Your task to perform on an android device: Search for "energizer triple a" on walmart.com, select the first entry, and add it to the cart. Image 0: 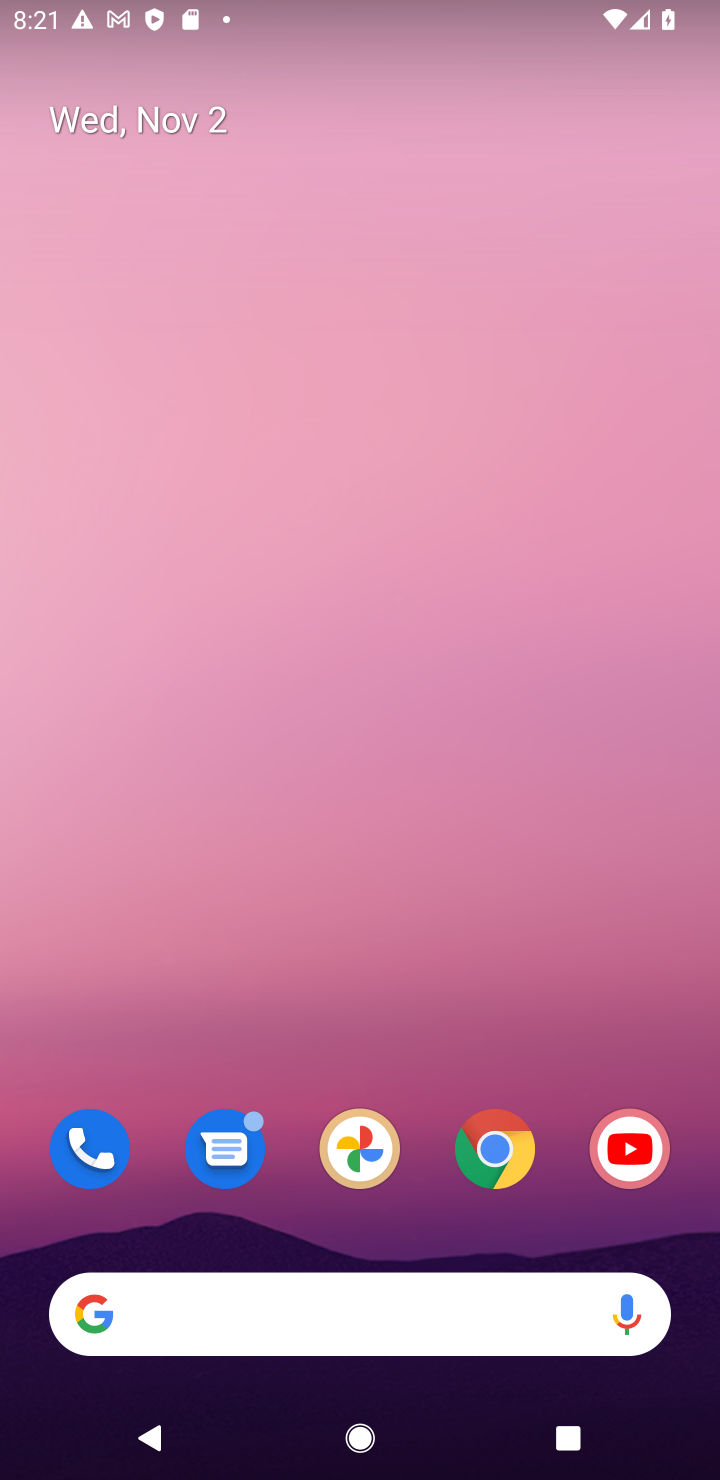
Step 0: drag from (426, 883) to (396, 12)
Your task to perform on an android device: Search for "energizer triple a" on walmart.com, select the first entry, and add it to the cart. Image 1: 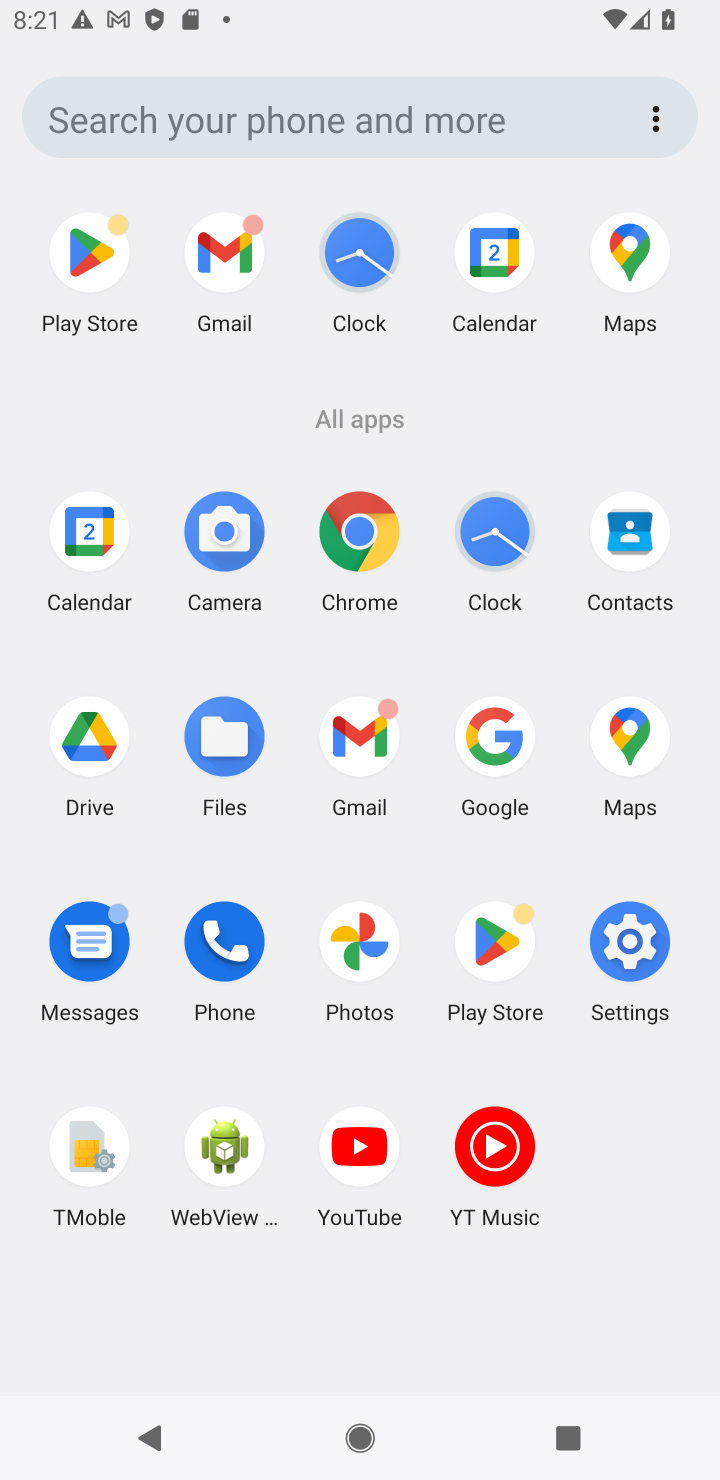
Step 1: click (503, 738)
Your task to perform on an android device: Search for "energizer triple a" on walmart.com, select the first entry, and add it to the cart. Image 2: 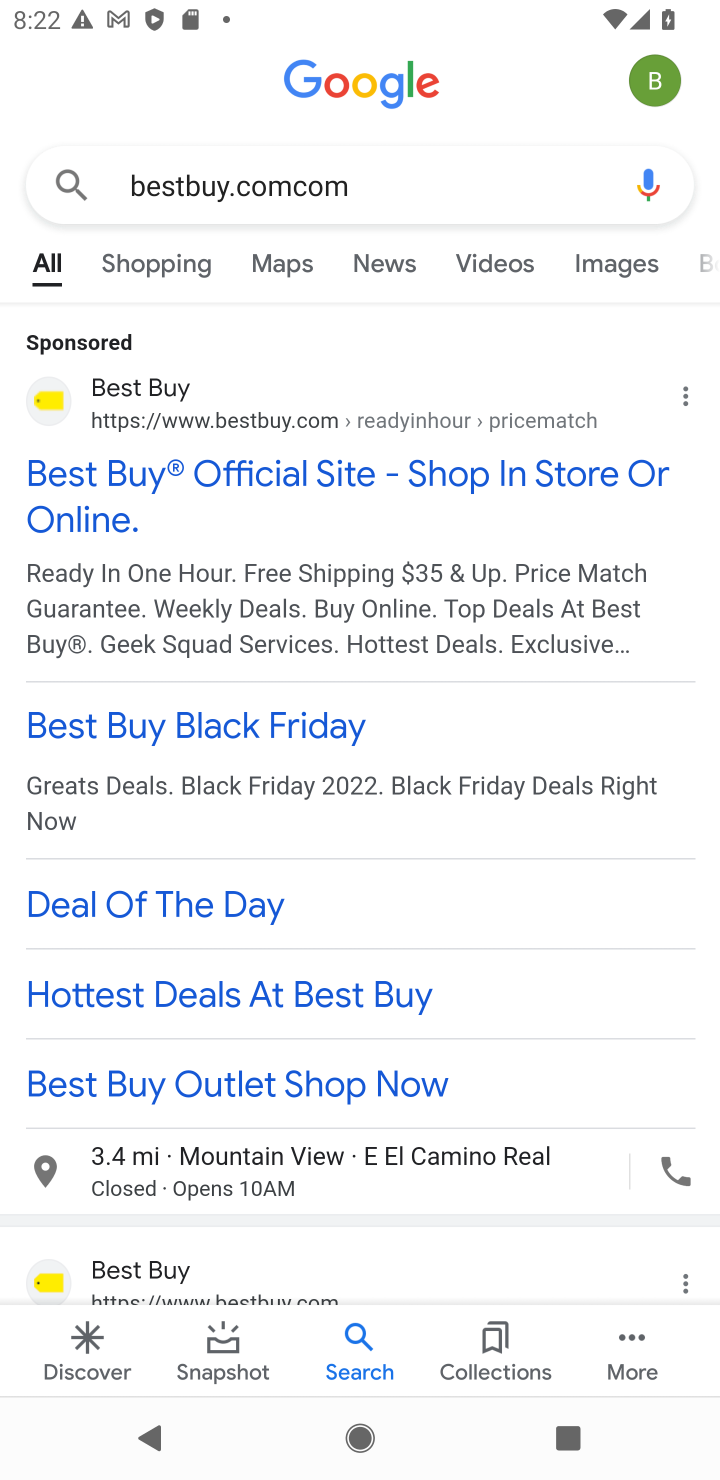
Step 2: click (216, 473)
Your task to perform on an android device: Search for "energizer triple a" on walmart.com, select the first entry, and add it to the cart. Image 3: 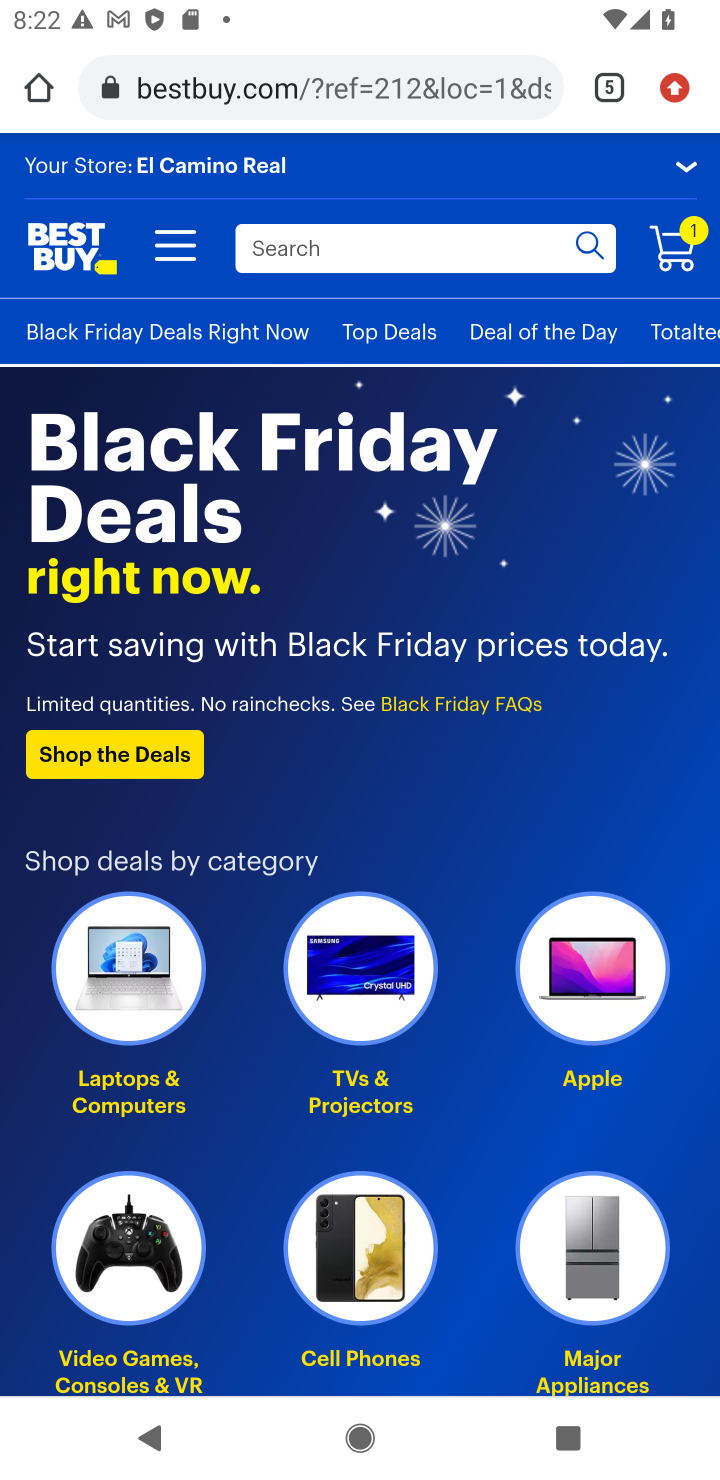
Step 3: click (681, 97)
Your task to perform on an android device: Search for "energizer triple a" on walmart.com, select the first entry, and add it to the cart. Image 4: 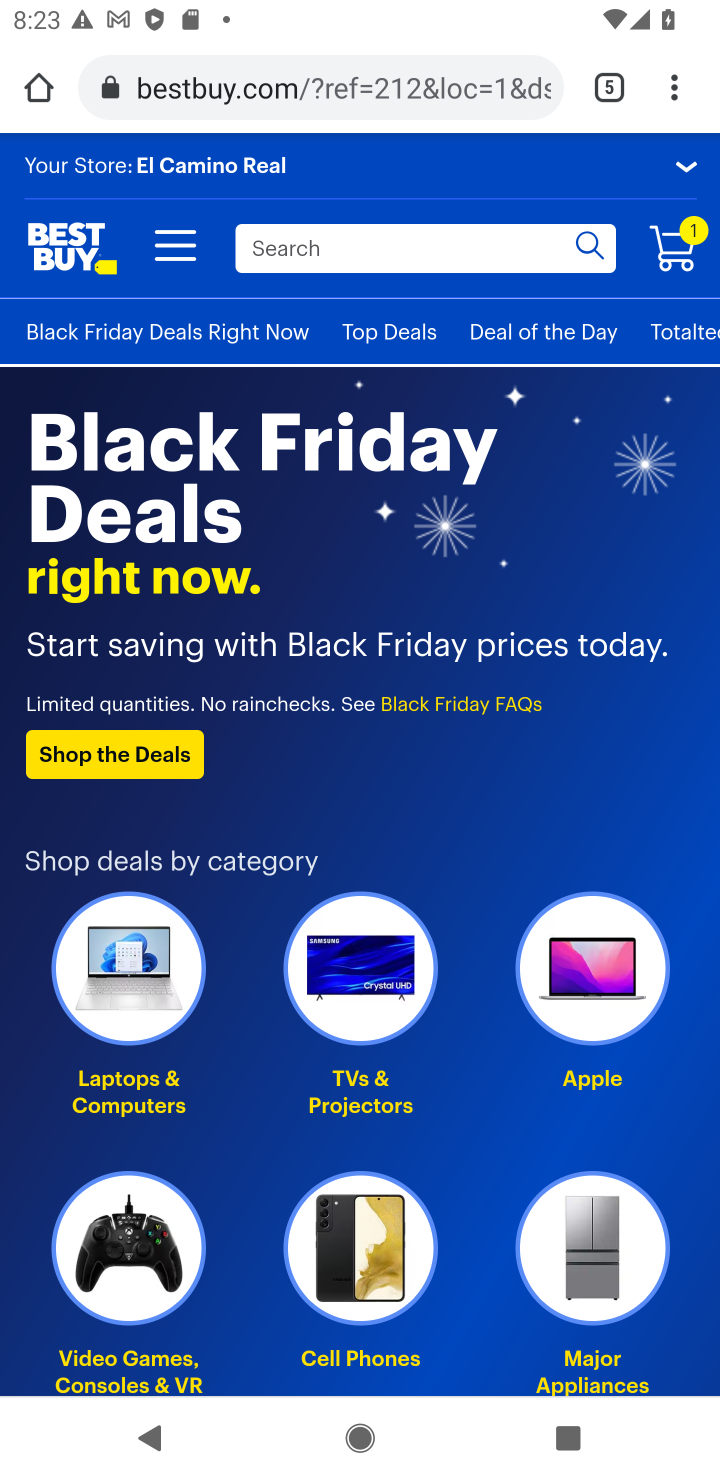
Step 4: drag from (676, 99) to (401, 293)
Your task to perform on an android device: Search for "energizer triple a" on walmart.com, select the first entry, and add it to the cart. Image 5: 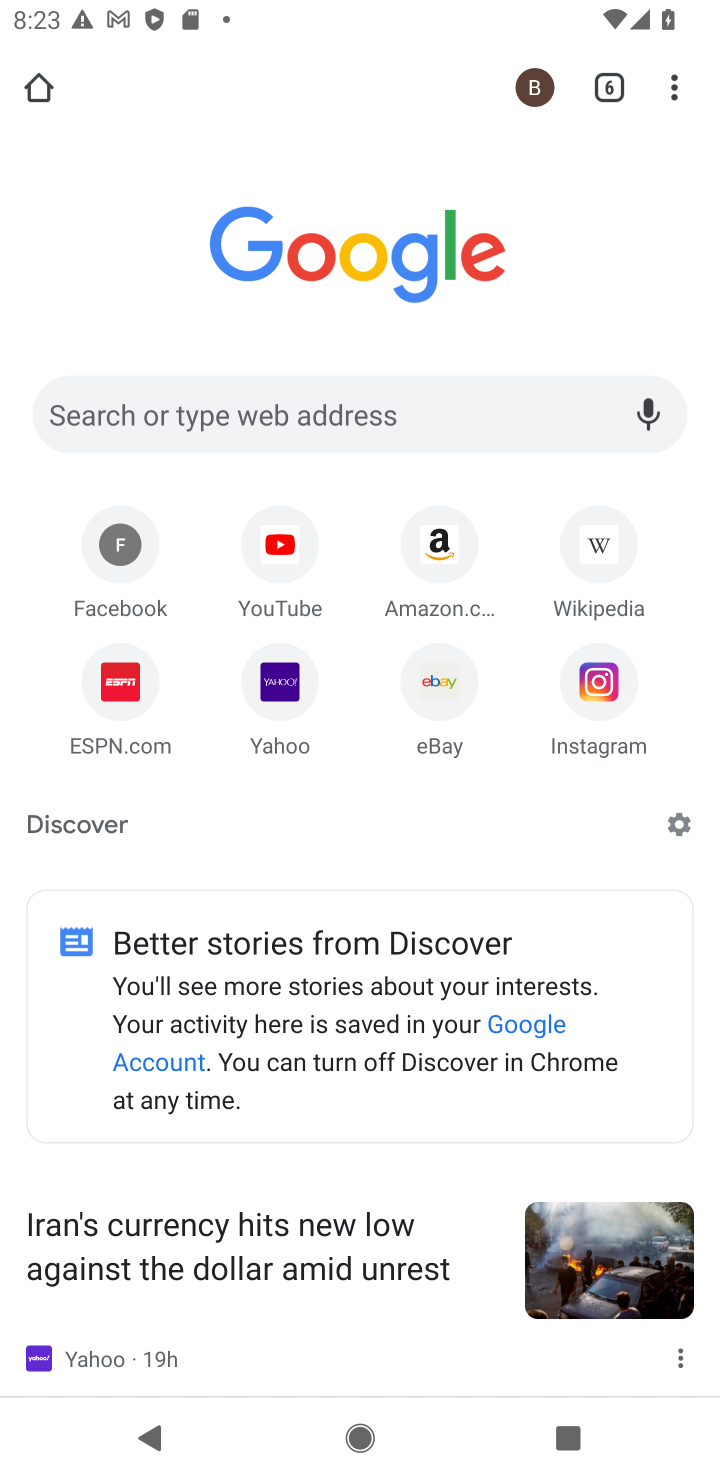
Step 5: click (346, 413)
Your task to perform on an android device: Search for "energizer triple a" on walmart.com, select the first entry, and add it to the cart. Image 6: 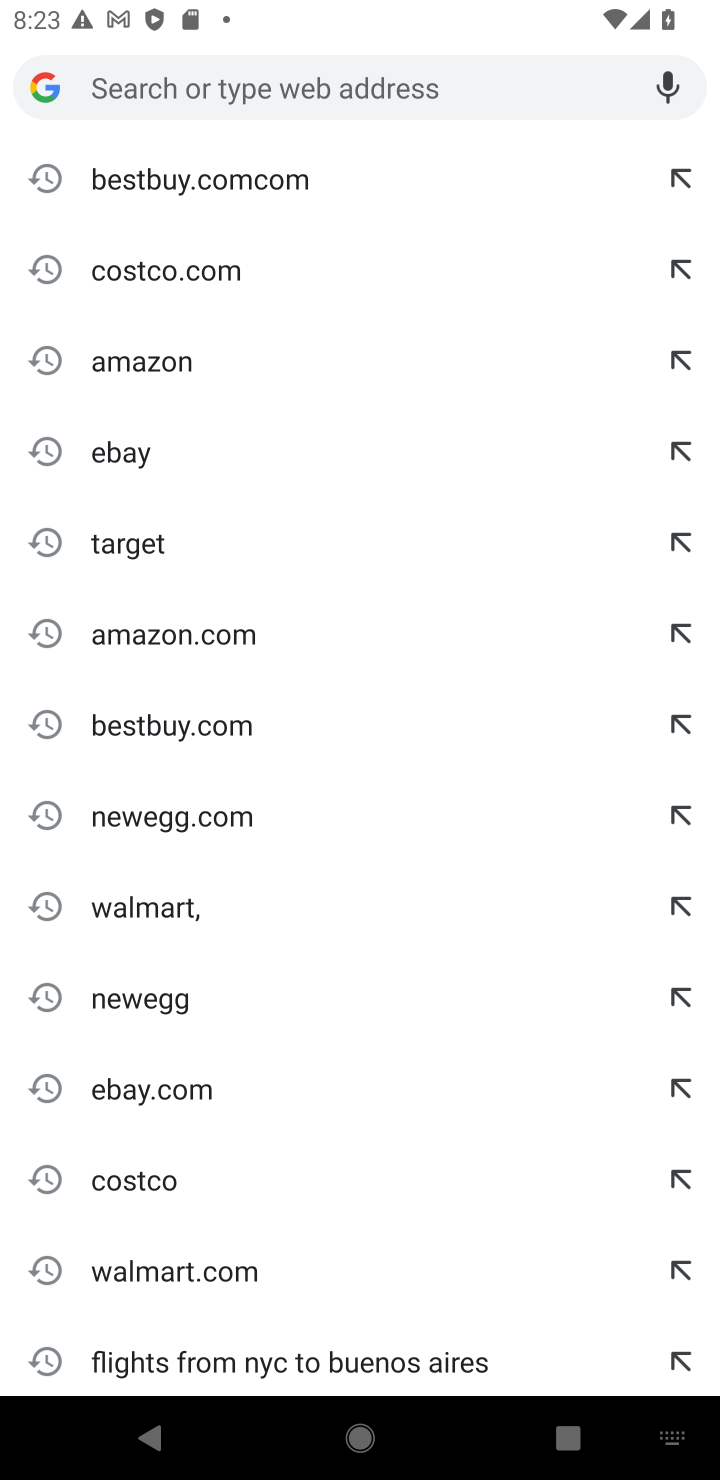
Step 6: type "walmart.com"
Your task to perform on an android device: Search for "energizer triple a" on walmart.com, select the first entry, and add it to the cart. Image 7: 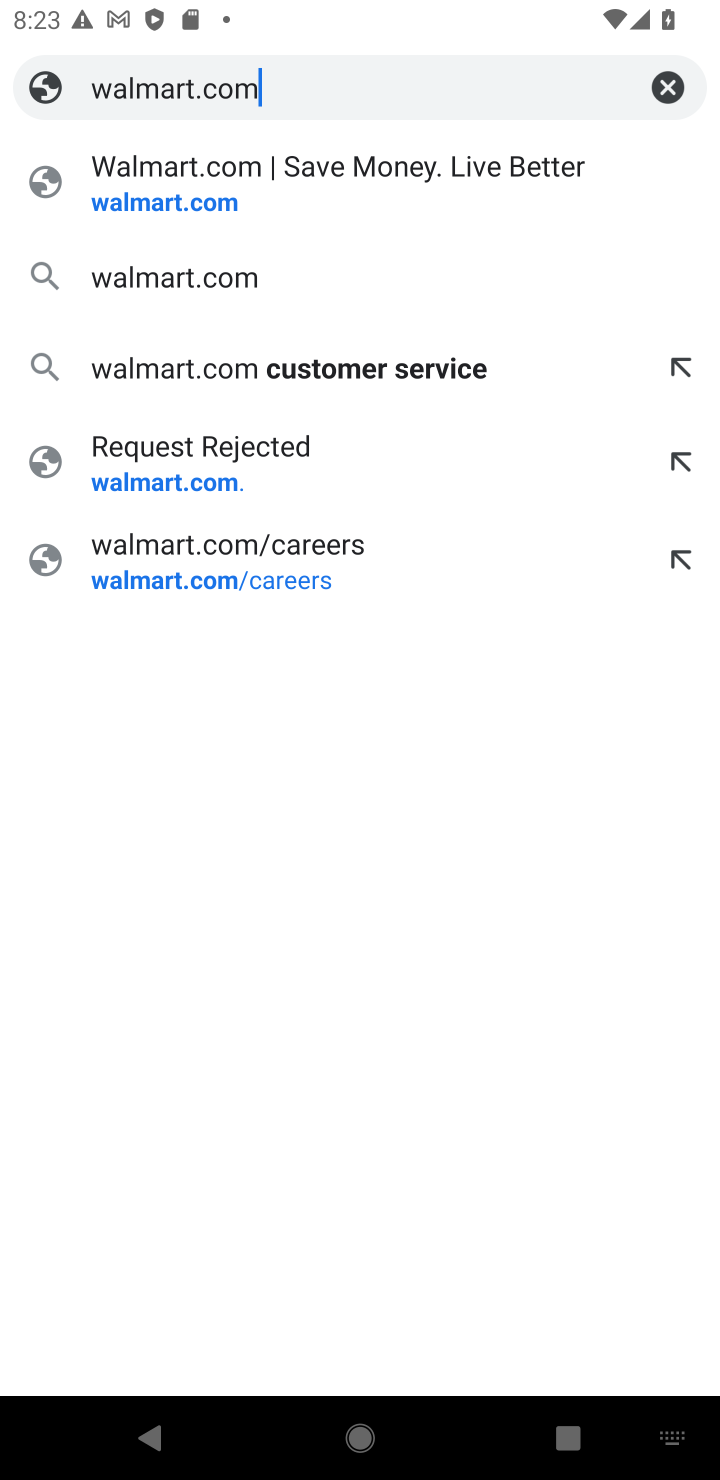
Step 7: type ""
Your task to perform on an android device: Search for "energizer triple a" on walmart.com, select the first entry, and add it to the cart. Image 8: 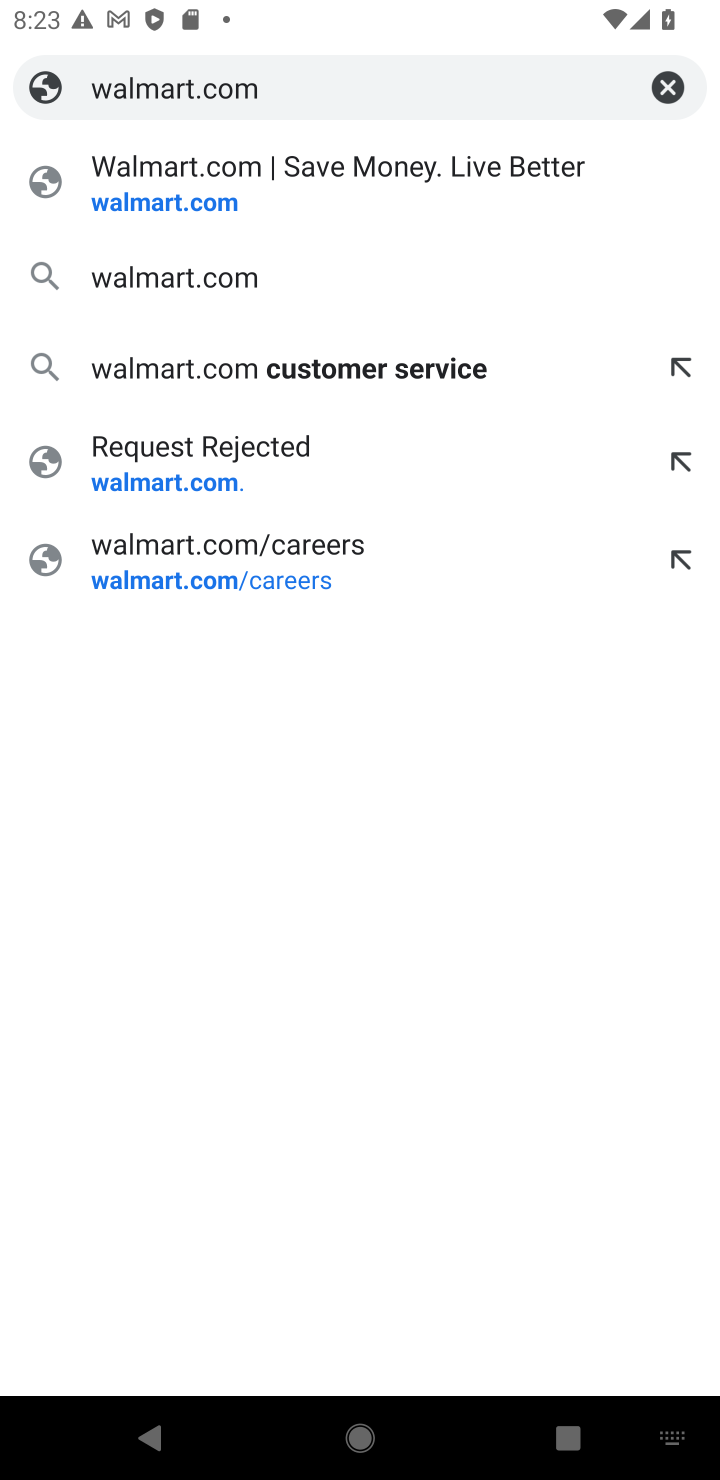
Step 8: click (195, 279)
Your task to perform on an android device: Search for "energizer triple a" on walmart.com, select the first entry, and add it to the cart. Image 9: 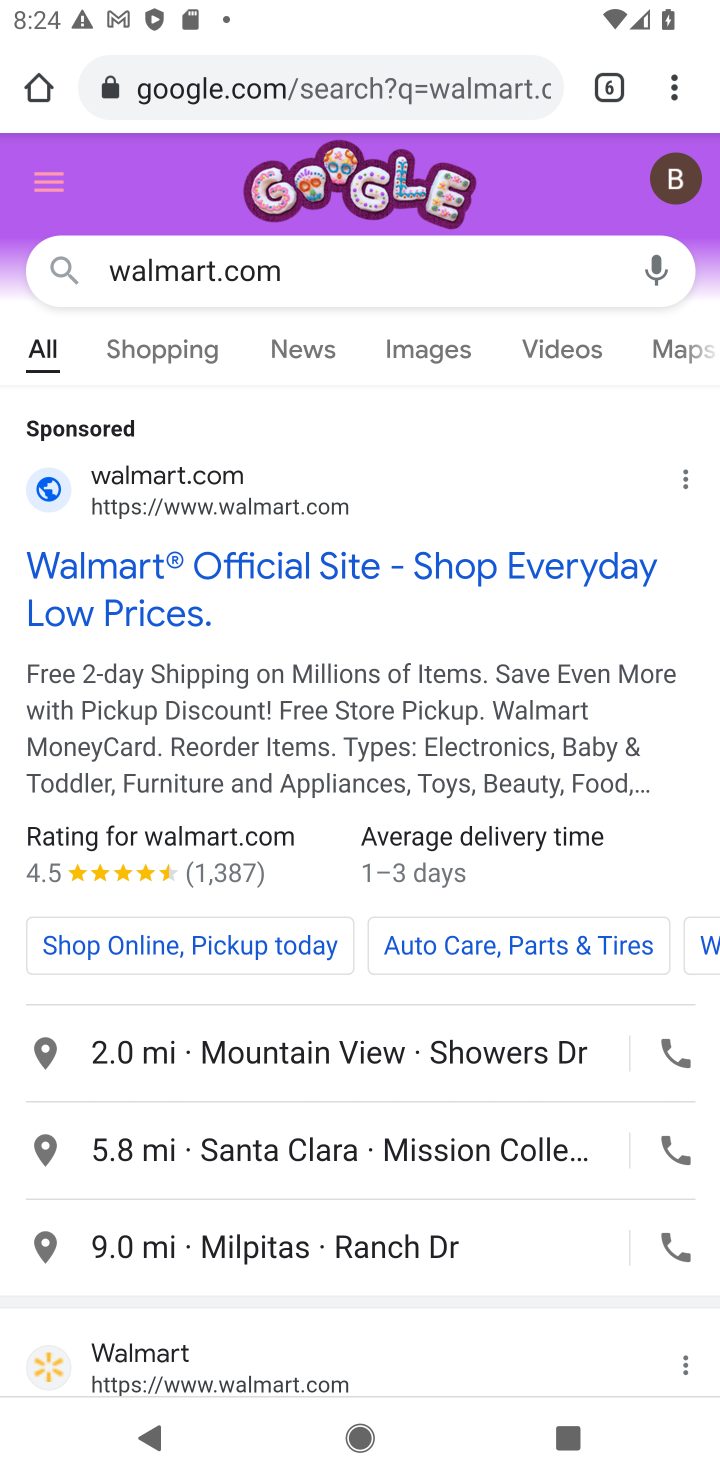
Step 9: click (220, 551)
Your task to perform on an android device: Search for "energizer triple a" on walmart.com, select the first entry, and add it to the cart. Image 10: 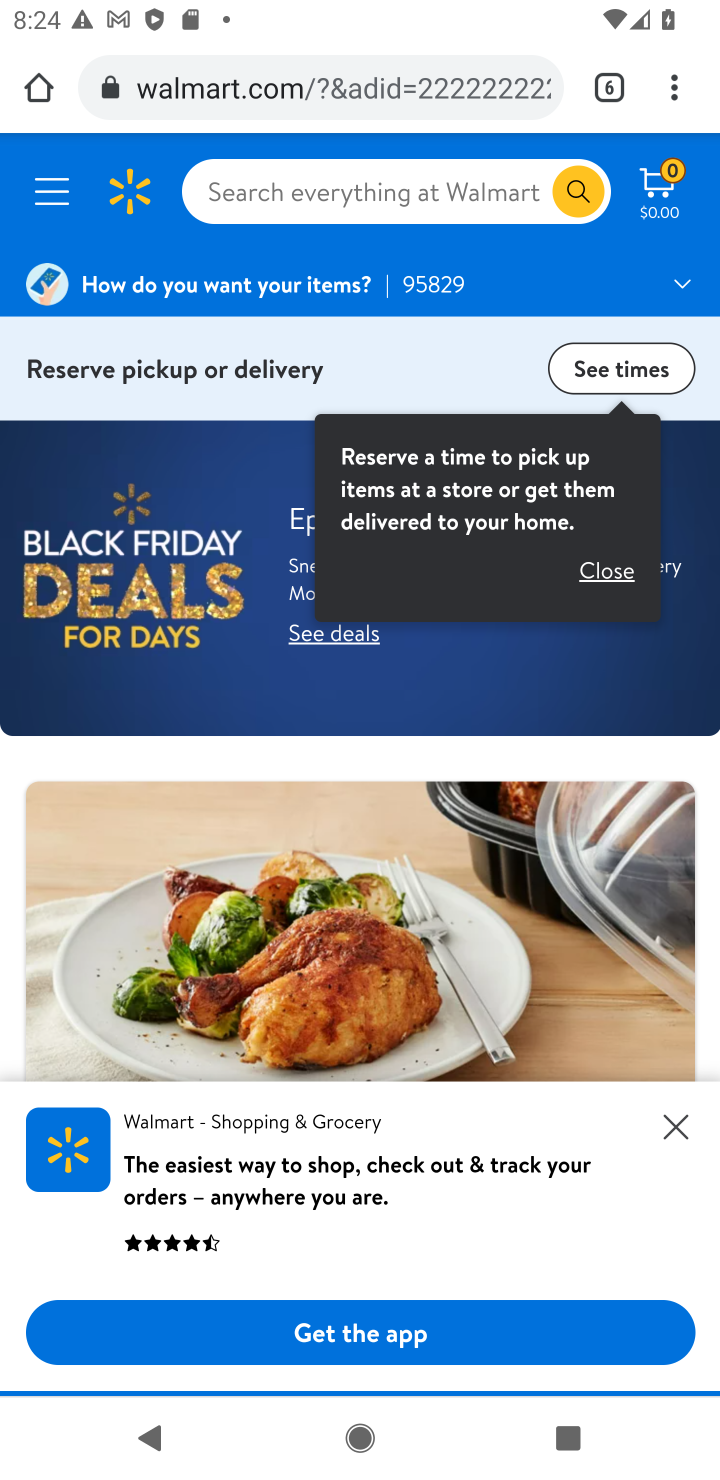
Step 10: click (308, 163)
Your task to perform on an android device: Search for "energizer triple a" on walmart.com, select the first entry, and add it to the cart. Image 11: 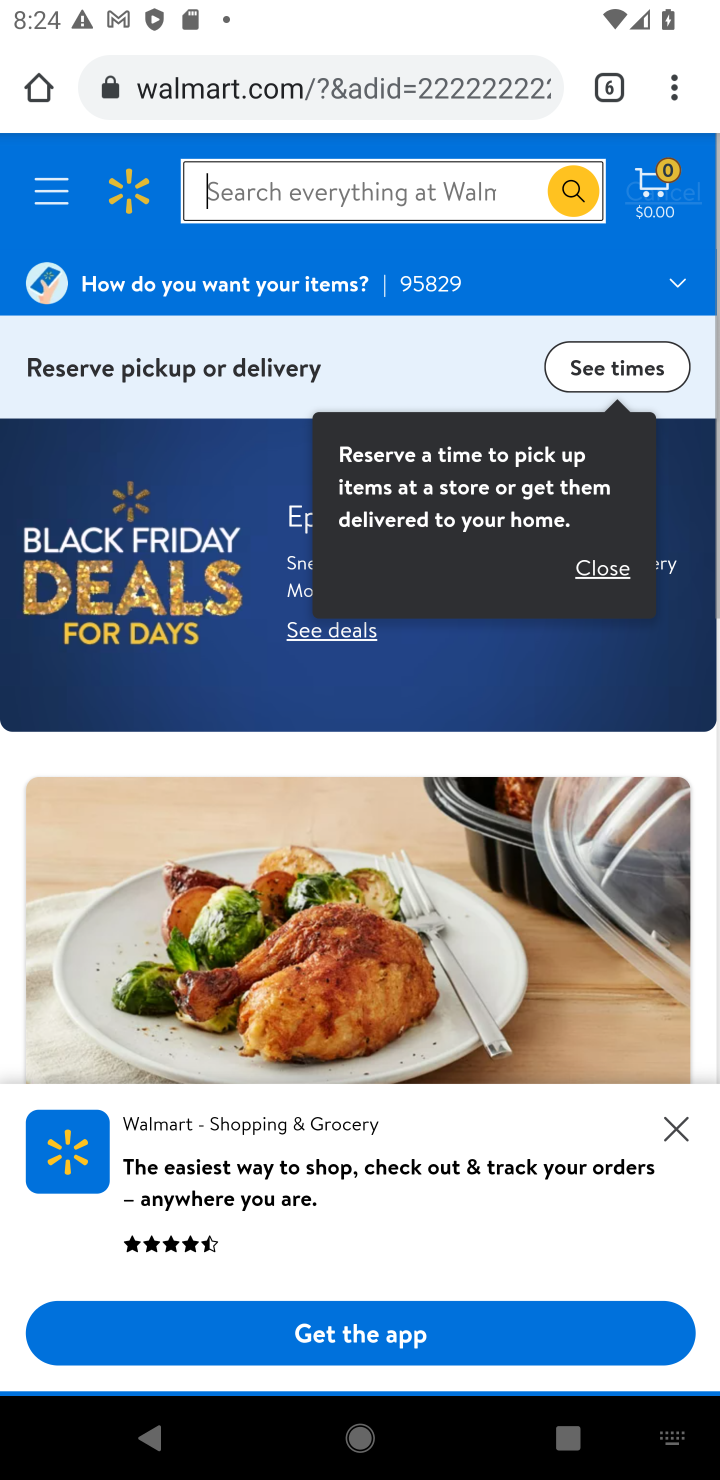
Step 11: click (321, 194)
Your task to perform on an android device: Search for "energizer triple a" on walmart.com, select the first entry, and add it to the cart. Image 12: 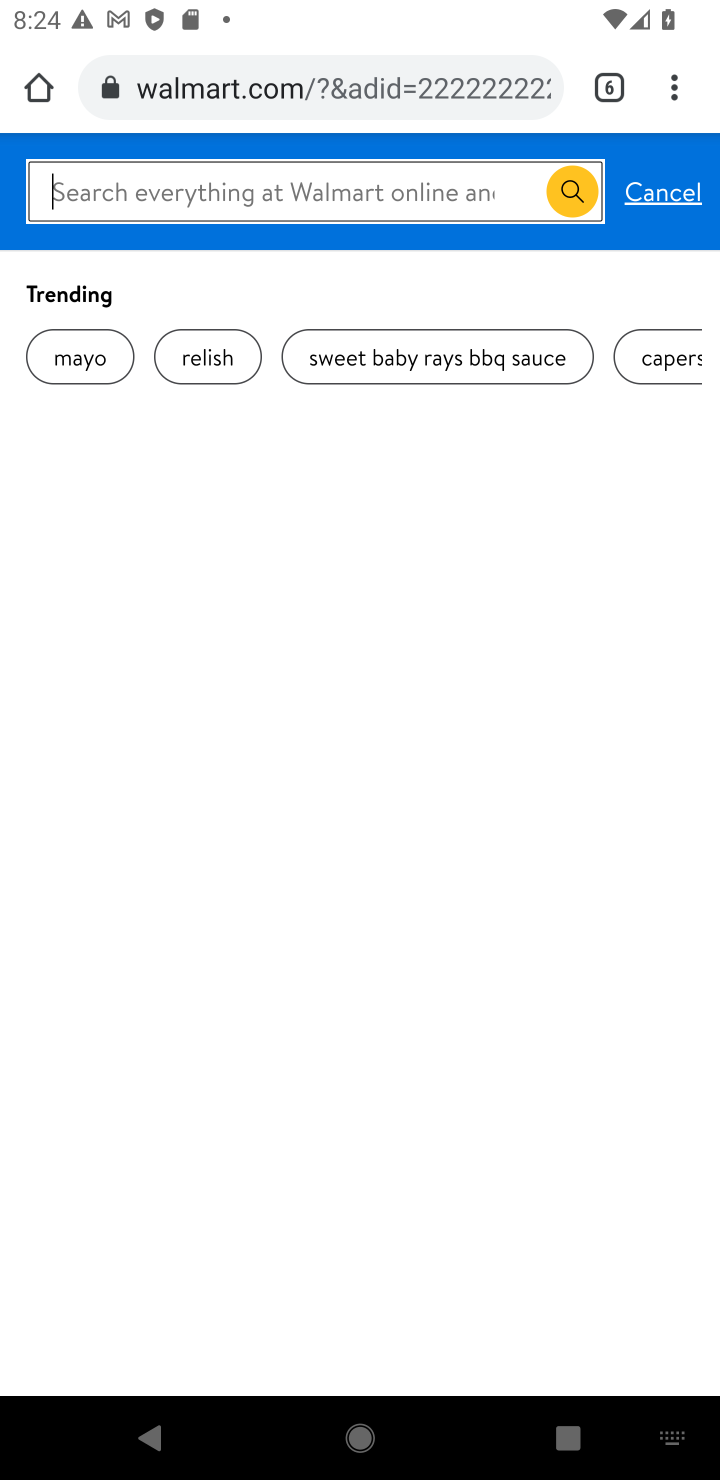
Step 12: type "energizer triple"
Your task to perform on an android device: Search for "energizer triple a" on walmart.com, select the first entry, and add it to the cart. Image 13: 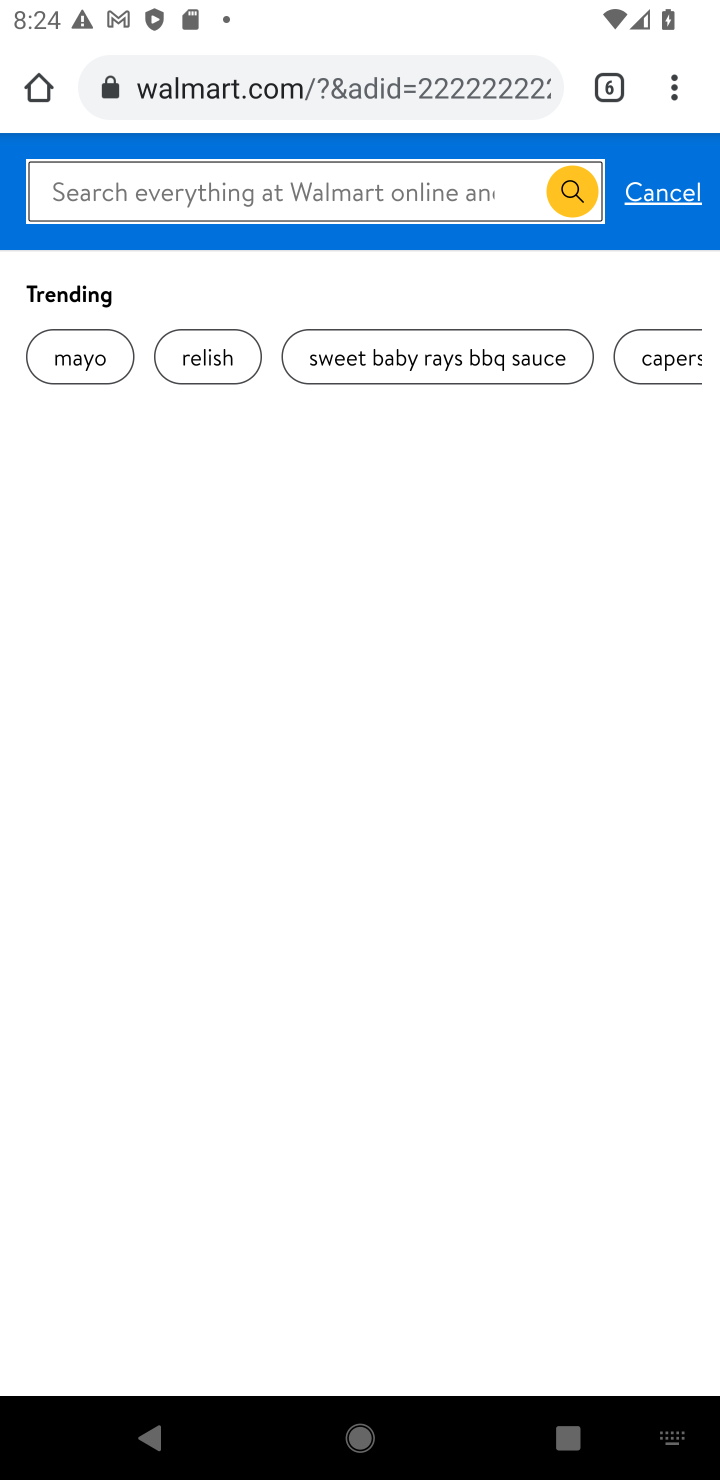
Step 13: type ""
Your task to perform on an android device: Search for "energizer triple a" on walmart.com, select the first entry, and add it to the cart. Image 14: 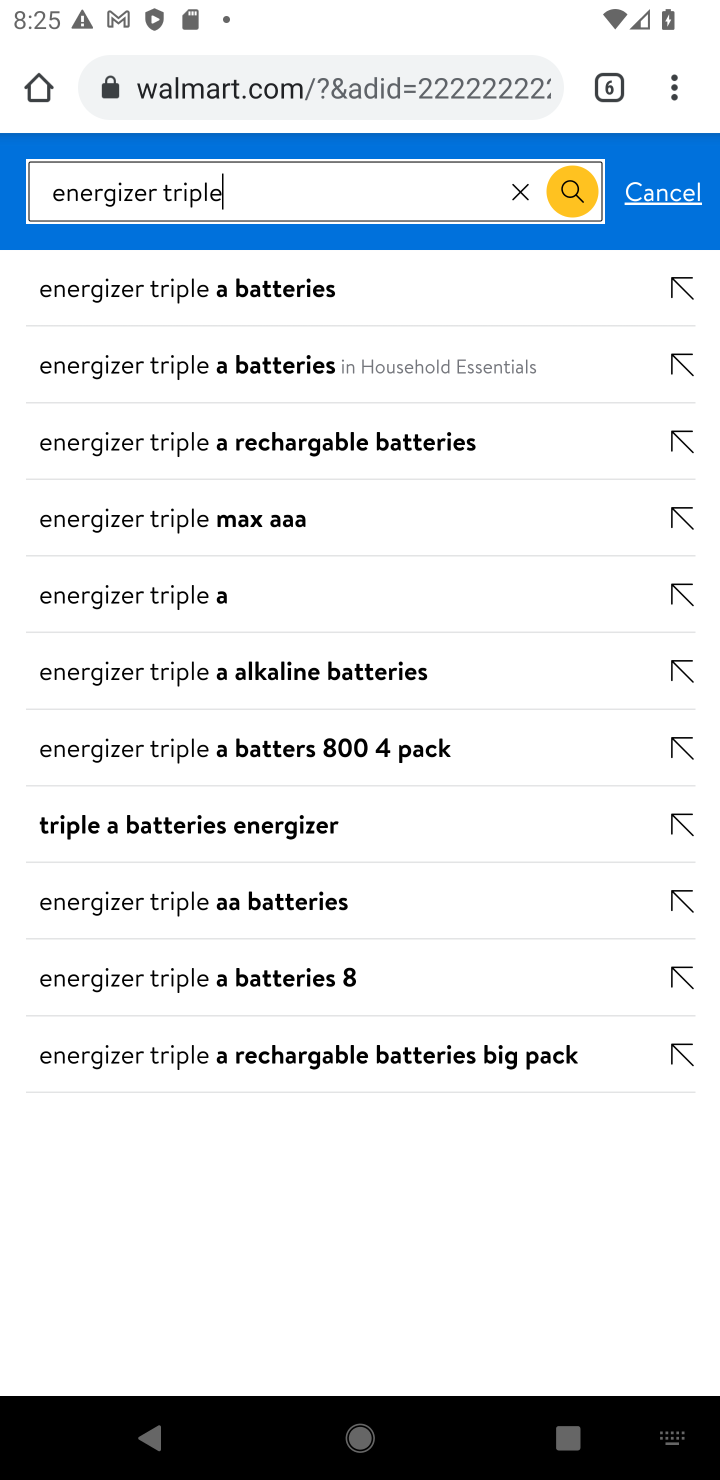
Step 14: click (205, 581)
Your task to perform on an android device: Search for "energizer triple a" on walmart.com, select the first entry, and add it to the cart. Image 15: 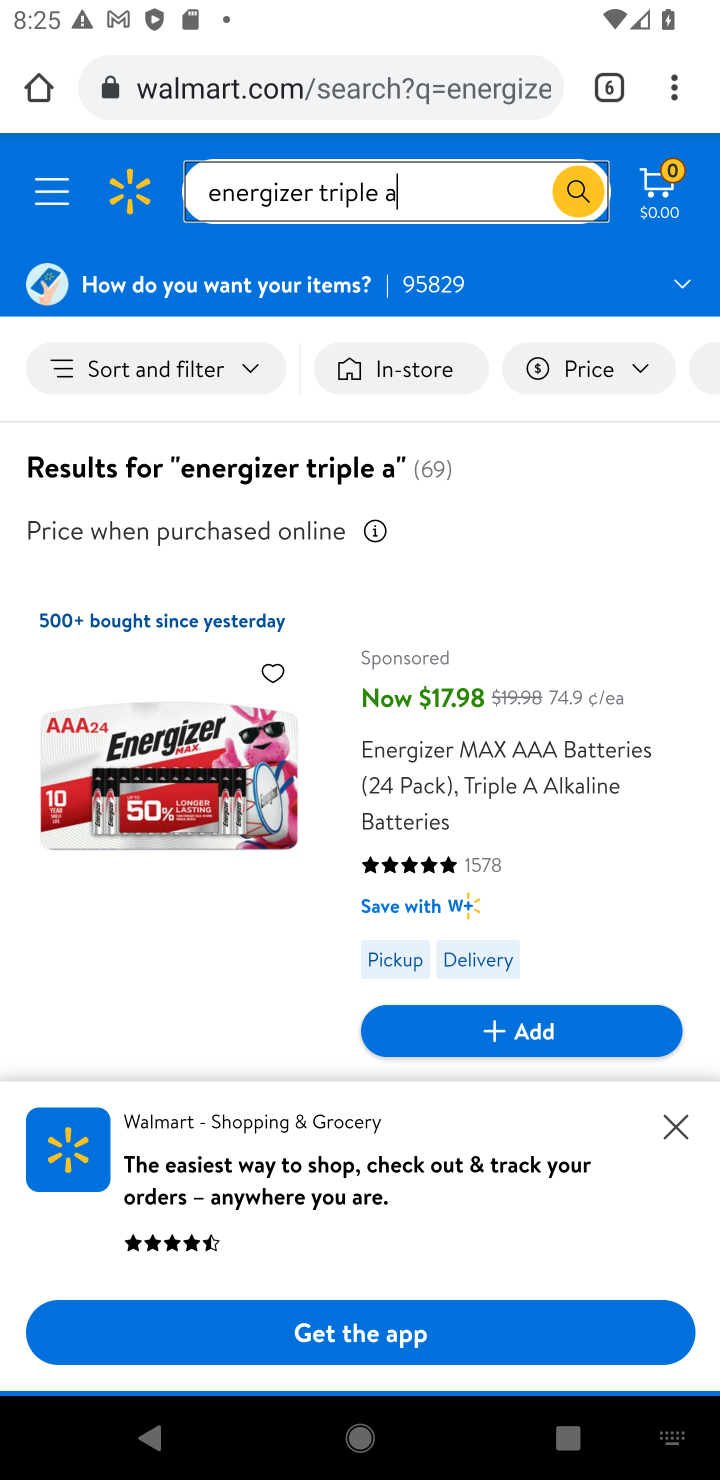
Step 15: click (514, 1028)
Your task to perform on an android device: Search for "energizer triple a" on walmart.com, select the first entry, and add it to the cart. Image 16: 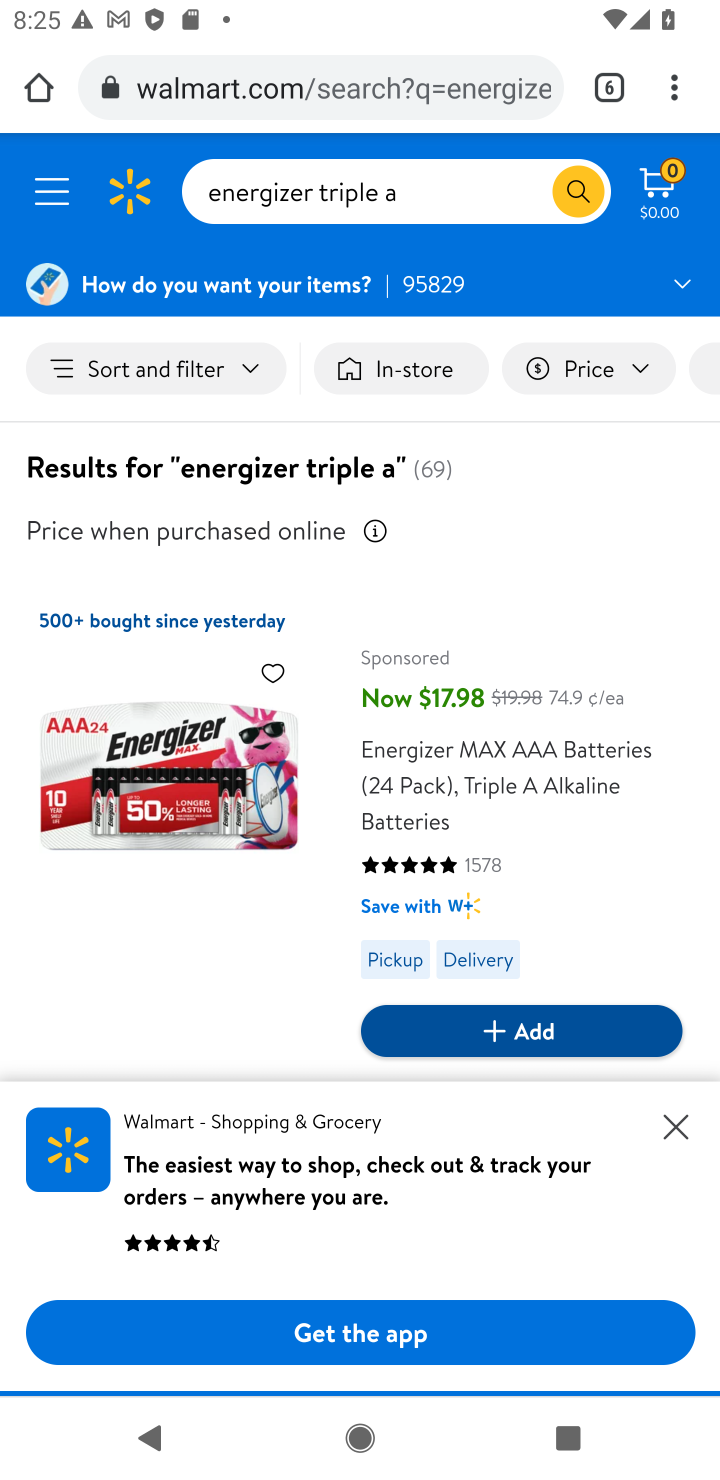
Step 16: click (503, 1034)
Your task to perform on an android device: Search for "energizer triple a" on walmart.com, select the first entry, and add it to the cart. Image 17: 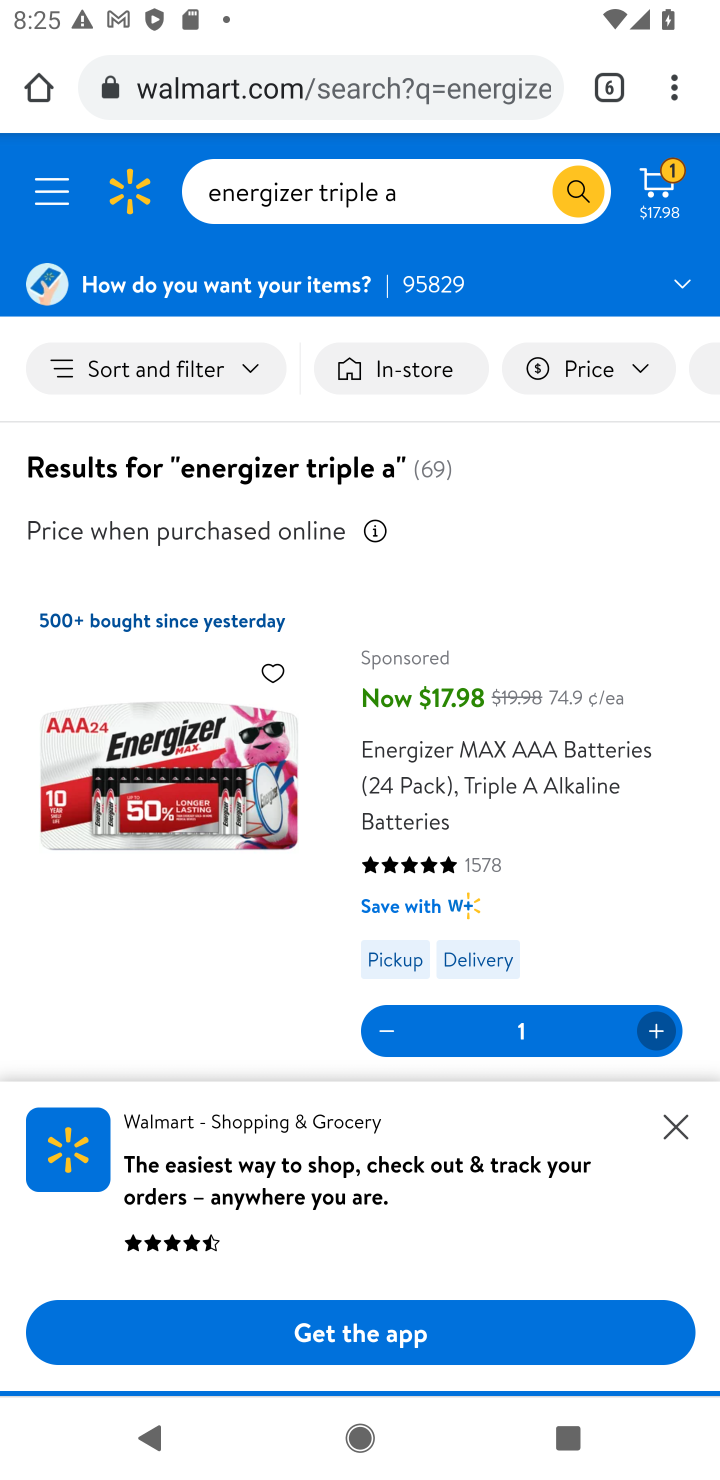
Step 17: task complete